Your task to perform on an android device: turn off priority inbox in the gmail app Image 0: 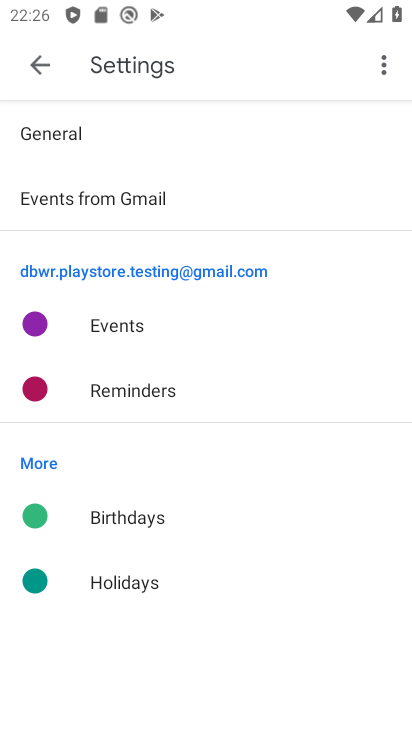
Step 0: press home button
Your task to perform on an android device: turn off priority inbox in the gmail app Image 1: 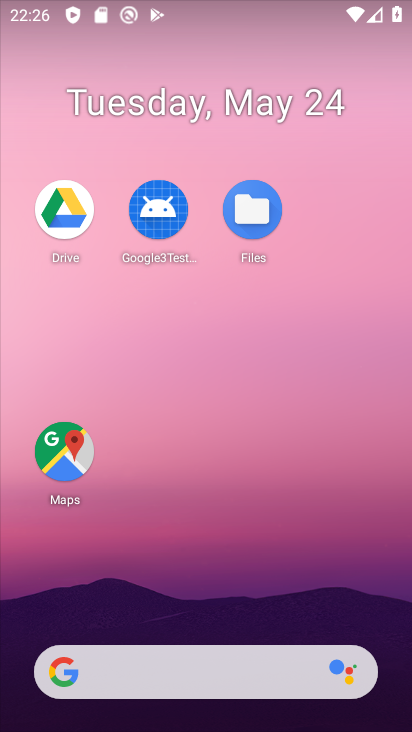
Step 1: drag from (210, 609) to (204, 69)
Your task to perform on an android device: turn off priority inbox in the gmail app Image 2: 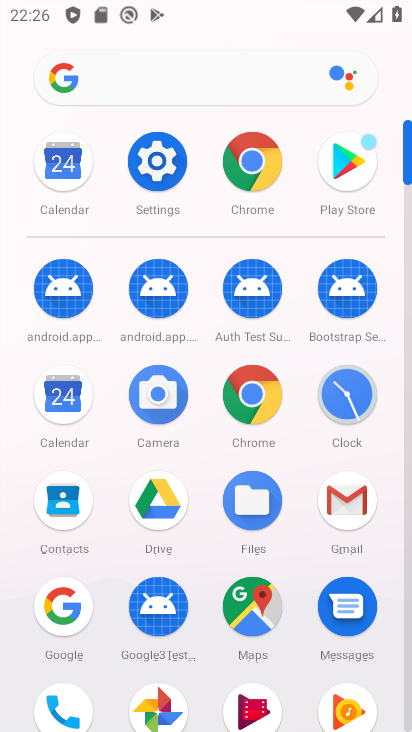
Step 2: click (368, 499)
Your task to perform on an android device: turn off priority inbox in the gmail app Image 3: 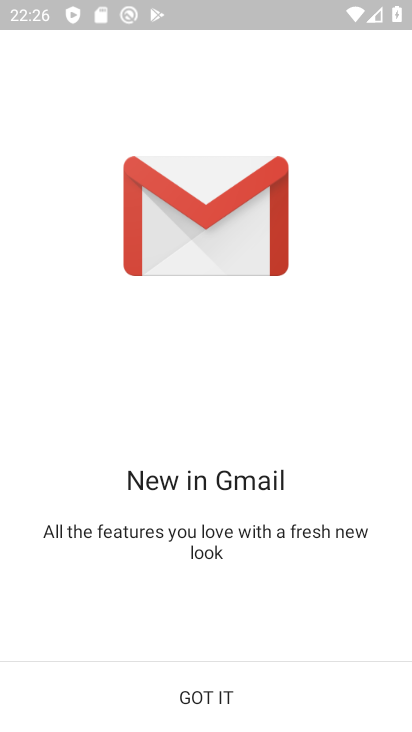
Step 3: click (172, 692)
Your task to perform on an android device: turn off priority inbox in the gmail app Image 4: 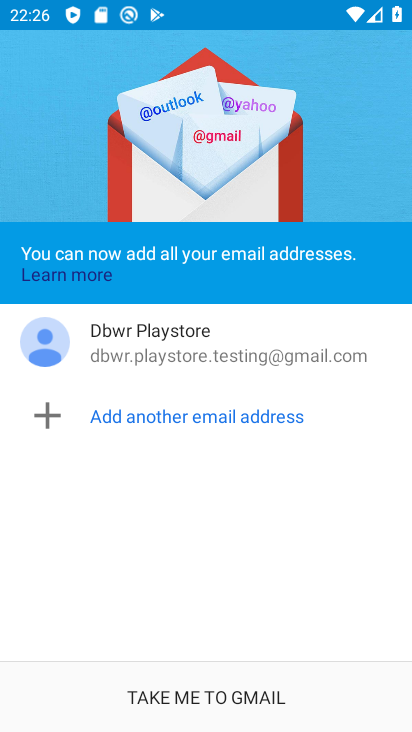
Step 4: click (148, 674)
Your task to perform on an android device: turn off priority inbox in the gmail app Image 5: 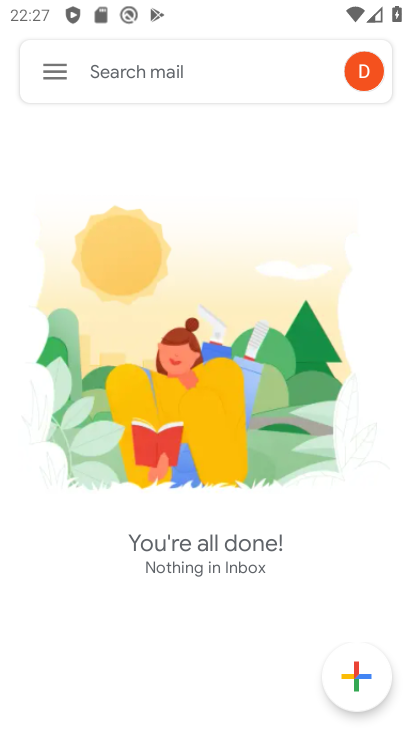
Step 5: click (44, 61)
Your task to perform on an android device: turn off priority inbox in the gmail app Image 6: 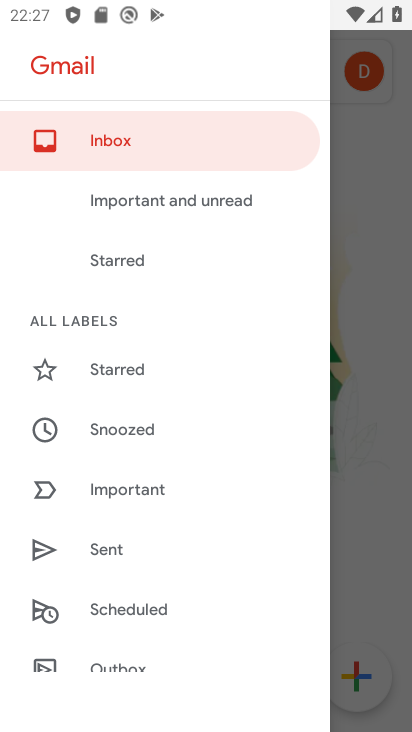
Step 6: drag from (113, 563) to (67, 75)
Your task to perform on an android device: turn off priority inbox in the gmail app Image 7: 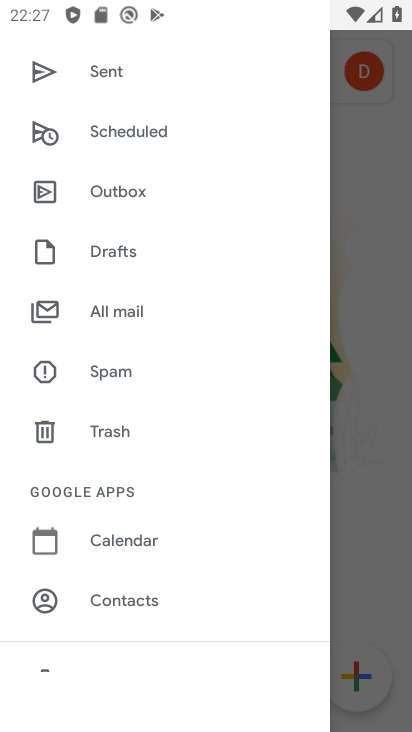
Step 7: drag from (211, 465) to (189, 154)
Your task to perform on an android device: turn off priority inbox in the gmail app Image 8: 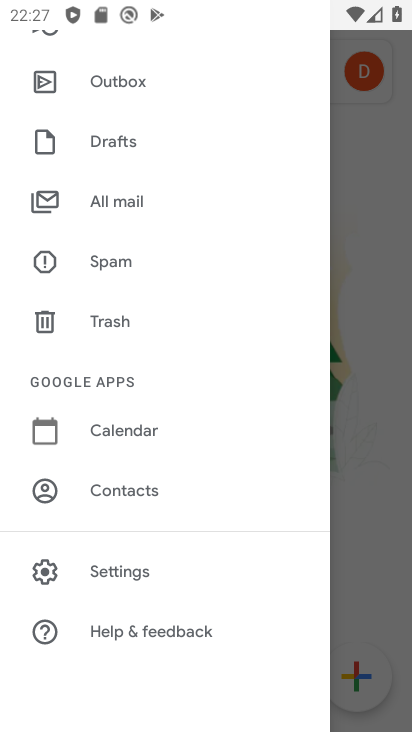
Step 8: click (109, 562)
Your task to perform on an android device: turn off priority inbox in the gmail app Image 9: 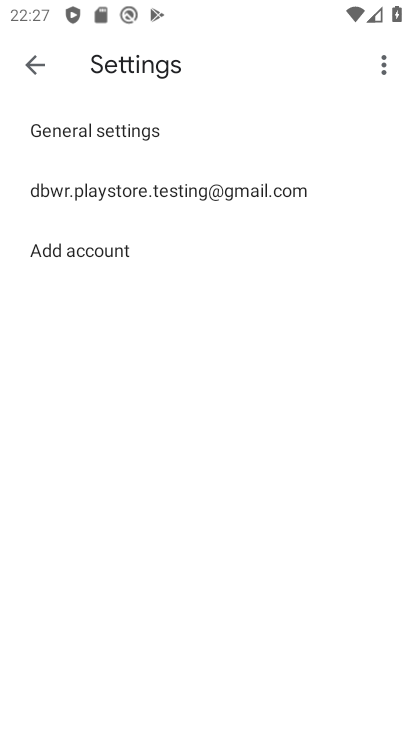
Step 9: click (94, 175)
Your task to perform on an android device: turn off priority inbox in the gmail app Image 10: 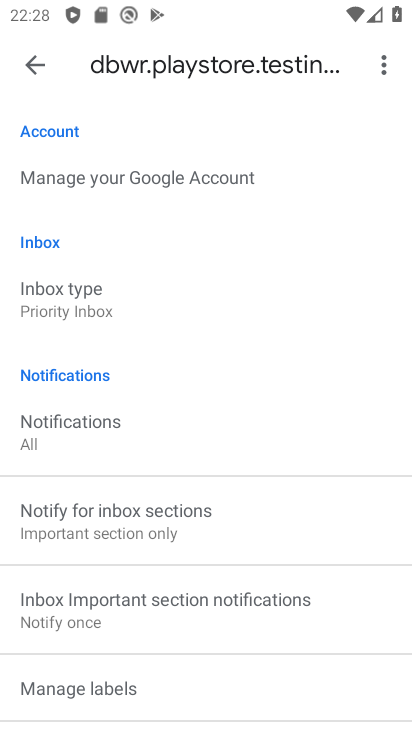
Step 10: click (125, 299)
Your task to perform on an android device: turn off priority inbox in the gmail app Image 11: 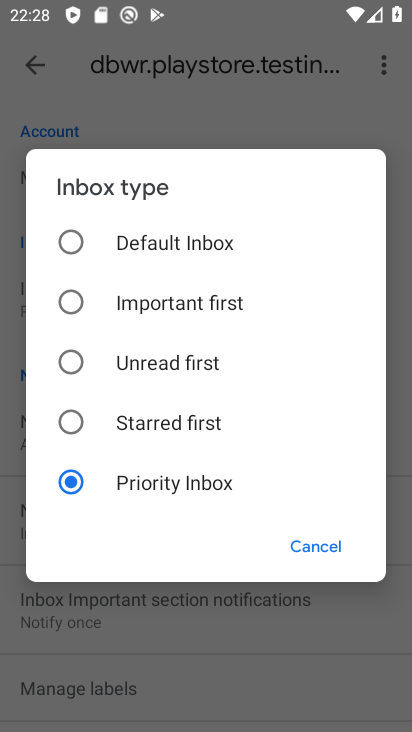
Step 11: click (149, 258)
Your task to perform on an android device: turn off priority inbox in the gmail app Image 12: 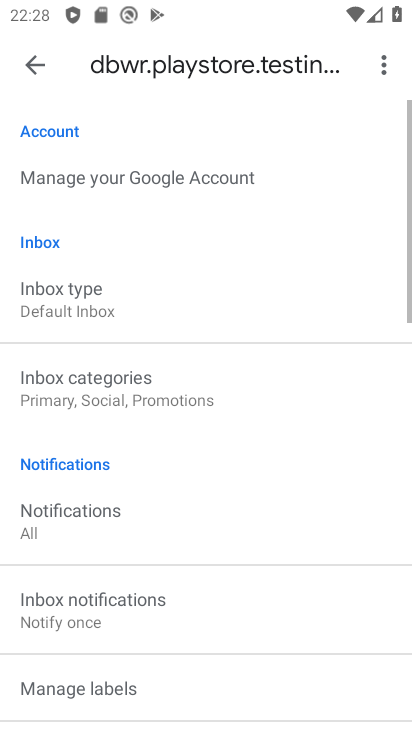
Step 12: task complete